Your task to perform on an android device: Go to Yahoo.com Image 0: 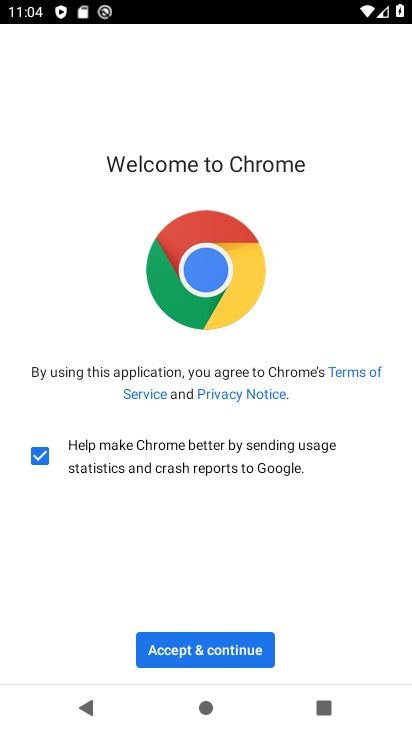
Step 0: press home button
Your task to perform on an android device: Go to Yahoo.com Image 1: 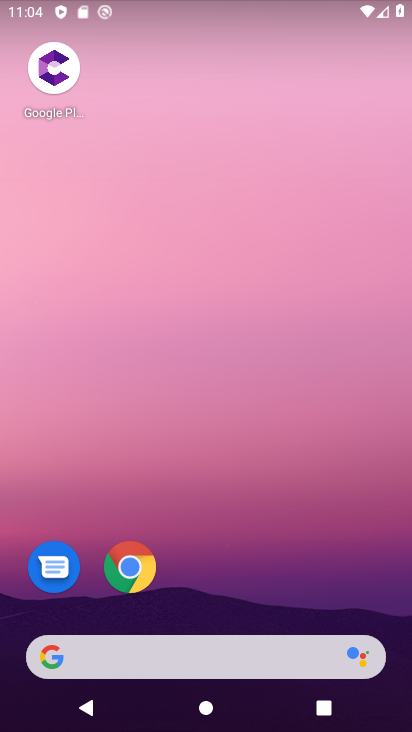
Step 1: drag from (156, 594) to (226, 219)
Your task to perform on an android device: Go to Yahoo.com Image 2: 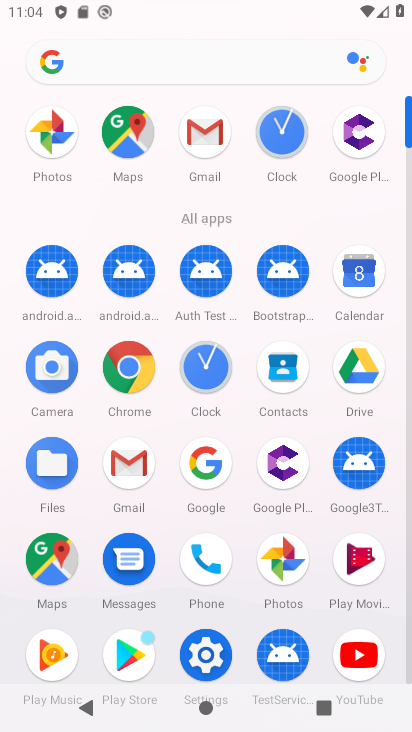
Step 2: click (149, 367)
Your task to perform on an android device: Go to Yahoo.com Image 3: 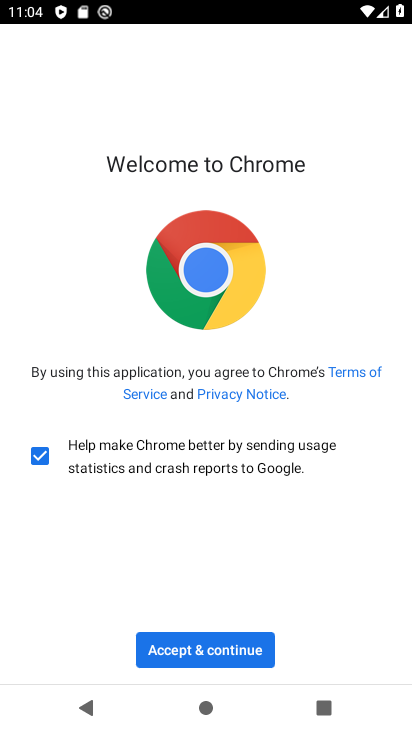
Step 3: click (196, 652)
Your task to perform on an android device: Go to Yahoo.com Image 4: 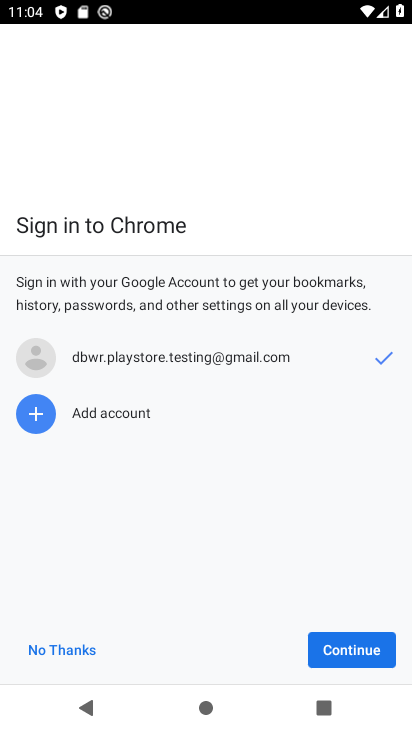
Step 4: click (335, 651)
Your task to perform on an android device: Go to Yahoo.com Image 5: 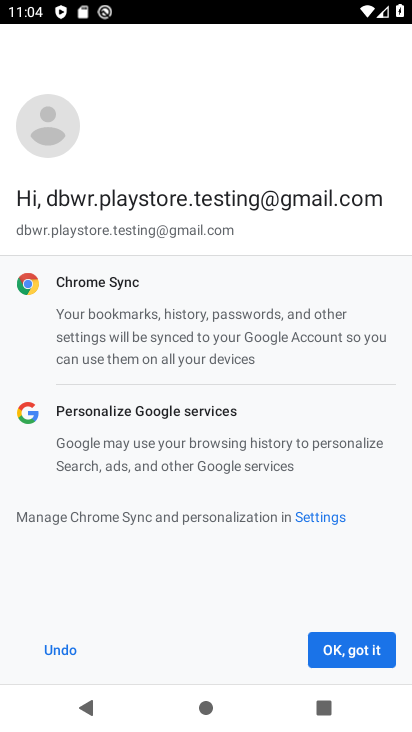
Step 5: click (310, 656)
Your task to perform on an android device: Go to Yahoo.com Image 6: 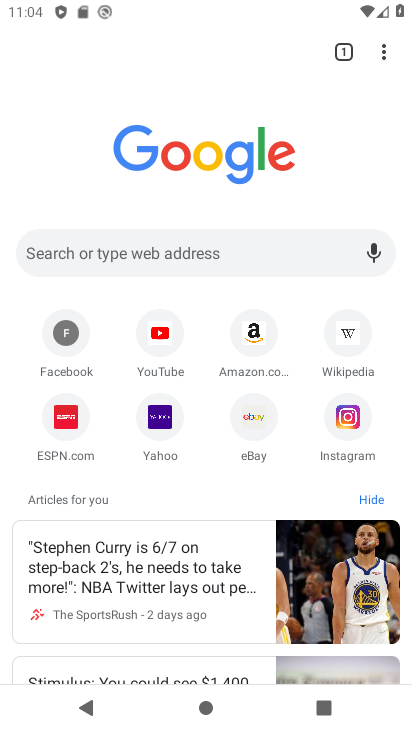
Step 6: click (162, 426)
Your task to perform on an android device: Go to Yahoo.com Image 7: 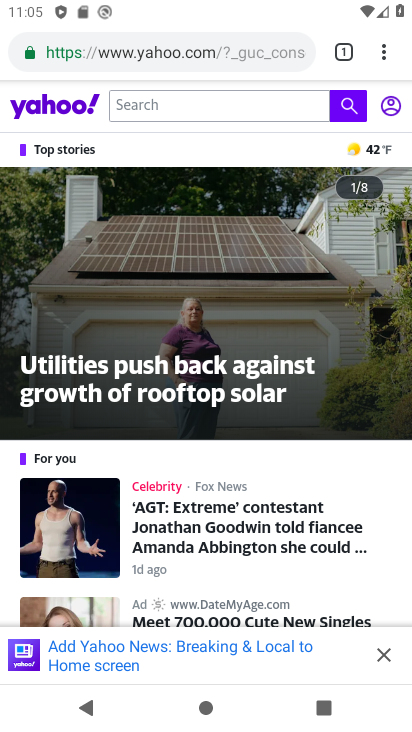
Step 7: task complete